Your task to perform on an android device: turn notification dots on Image 0: 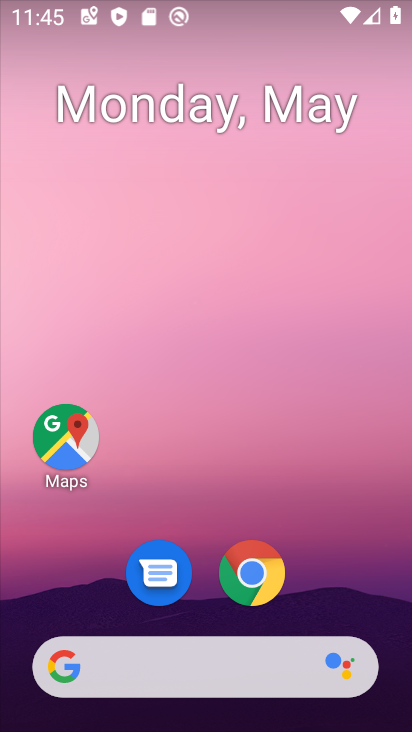
Step 0: click (236, 30)
Your task to perform on an android device: turn notification dots on Image 1: 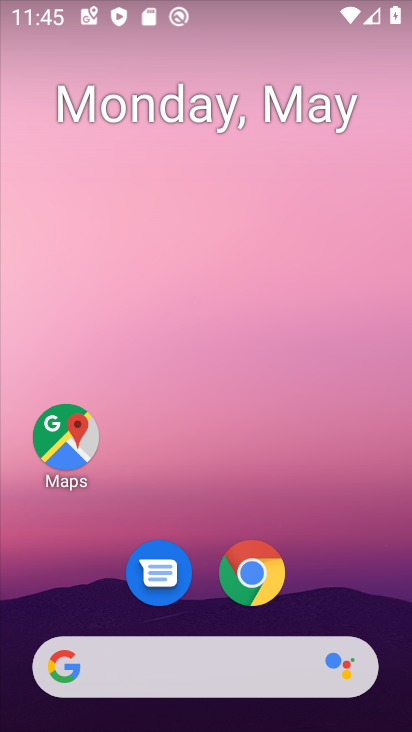
Step 1: drag from (200, 694) to (246, 41)
Your task to perform on an android device: turn notification dots on Image 2: 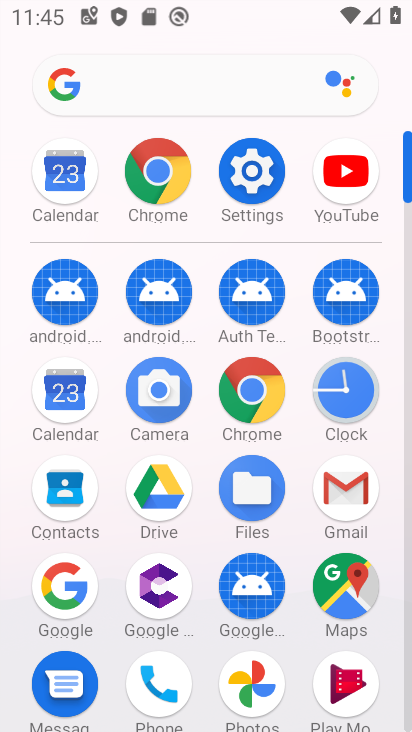
Step 2: click (258, 167)
Your task to perform on an android device: turn notification dots on Image 3: 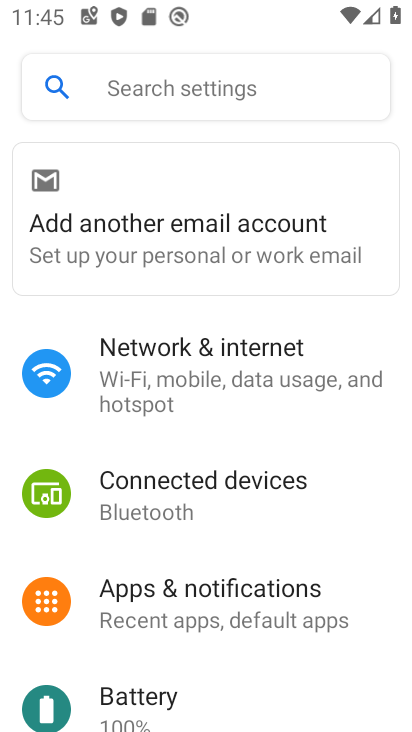
Step 3: click (280, 602)
Your task to perform on an android device: turn notification dots on Image 4: 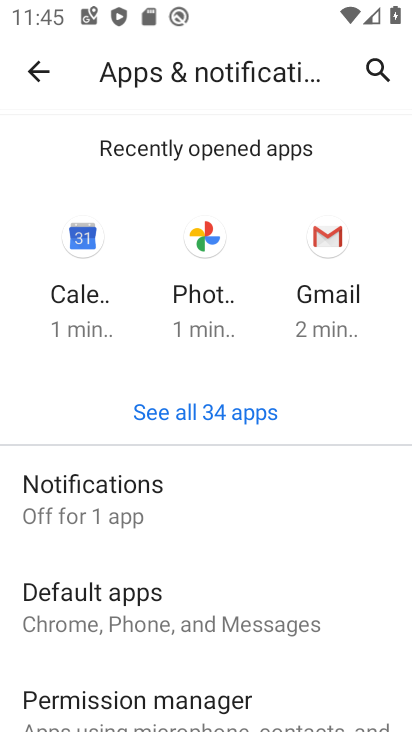
Step 4: click (204, 501)
Your task to perform on an android device: turn notification dots on Image 5: 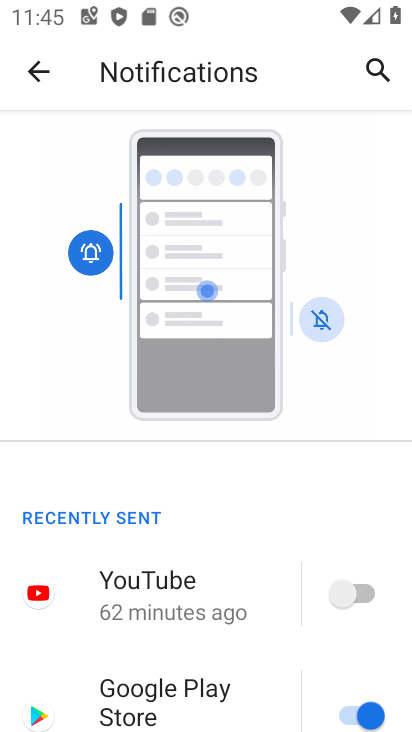
Step 5: drag from (191, 663) to (256, 217)
Your task to perform on an android device: turn notification dots on Image 6: 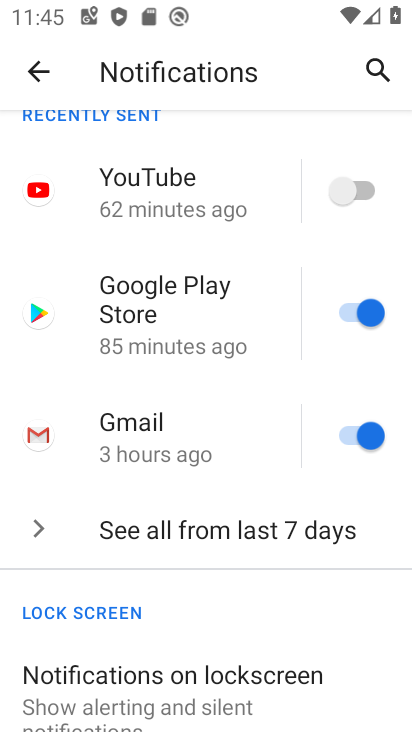
Step 6: drag from (237, 595) to (296, 156)
Your task to perform on an android device: turn notification dots on Image 7: 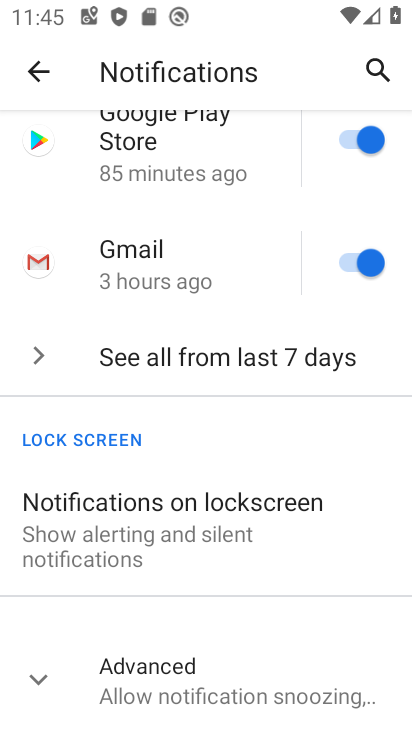
Step 7: click (237, 686)
Your task to perform on an android device: turn notification dots on Image 8: 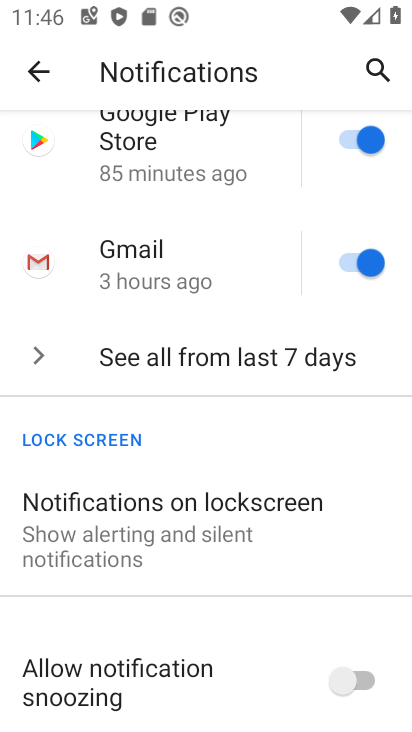
Step 8: task complete